Your task to perform on an android device: Open location settings Image 0: 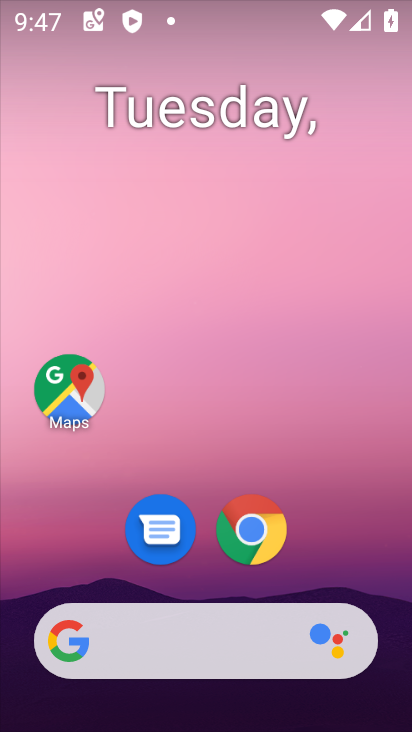
Step 0: drag from (248, 653) to (270, 189)
Your task to perform on an android device: Open location settings Image 1: 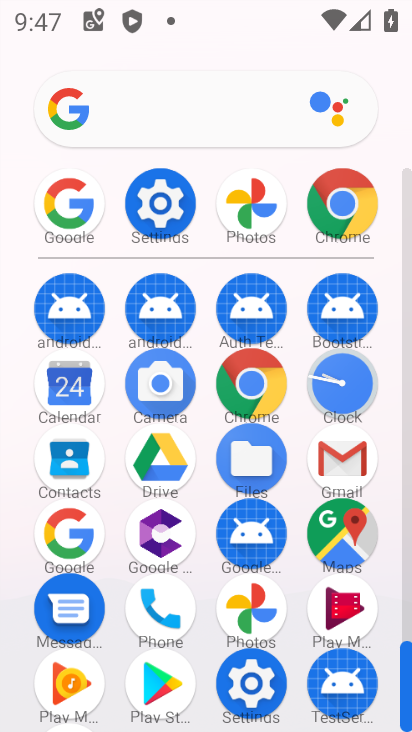
Step 1: click (157, 196)
Your task to perform on an android device: Open location settings Image 2: 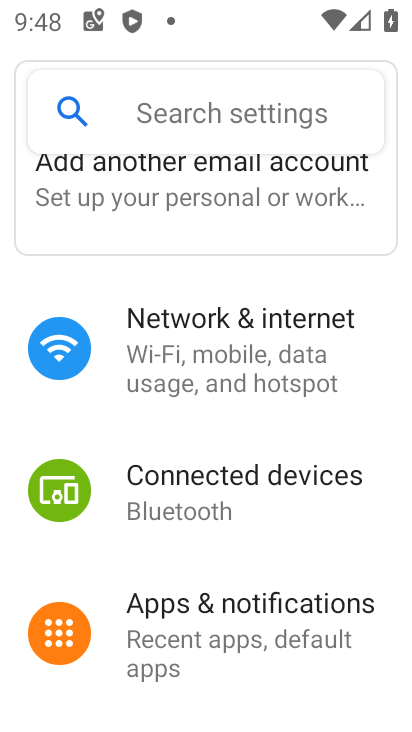
Step 2: drag from (238, 545) to (238, 209)
Your task to perform on an android device: Open location settings Image 3: 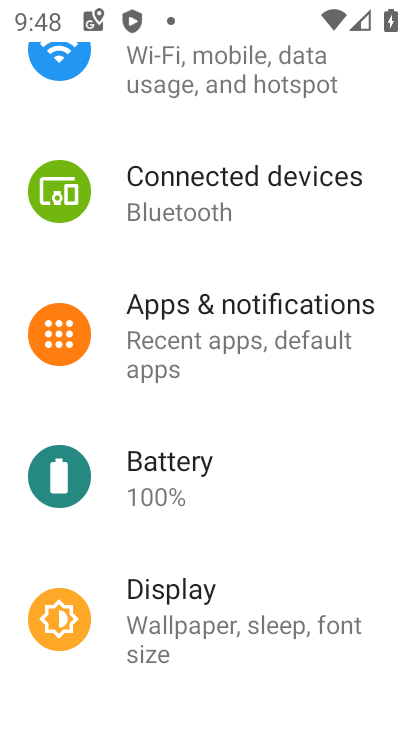
Step 3: drag from (169, 570) to (213, 264)
Your task to perform on an android device: Open location settings Image 4: 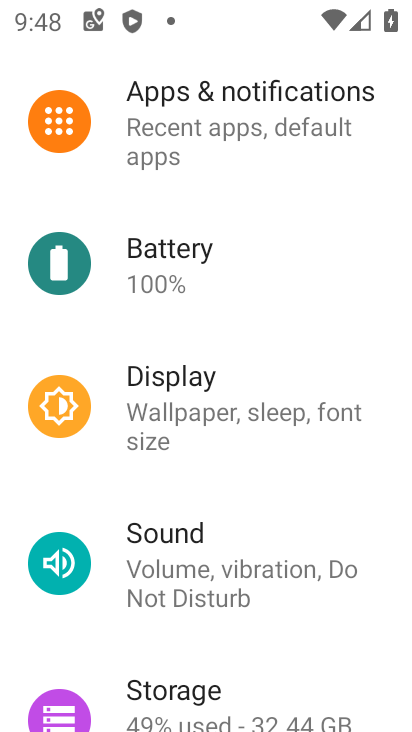
Step 4: drag from (190, 637) to (223, 271)
Your task to perform on an android device: Open location settings Image 5: 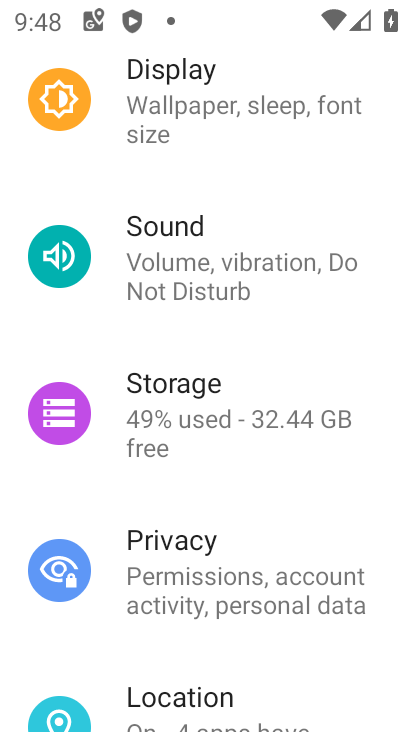
Step 5: drag from (201, 569) to (246, 191)
Your task to perform on an android device: Open location settings Image 6: 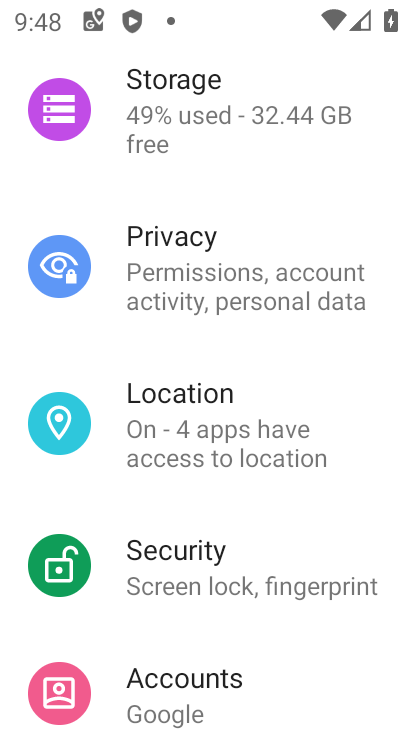
Step 6: click (236, 433)
Your task to perform on an android device: Open location settings Image 7: 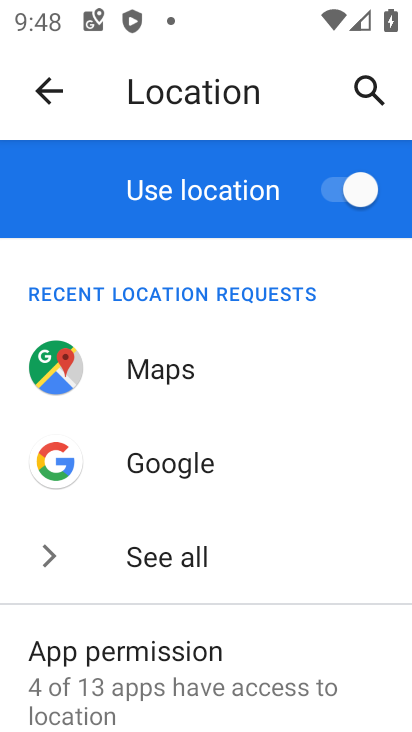
Step 7: click (143, 703)
Your task to perform on an android device: Open location settings Image 8: 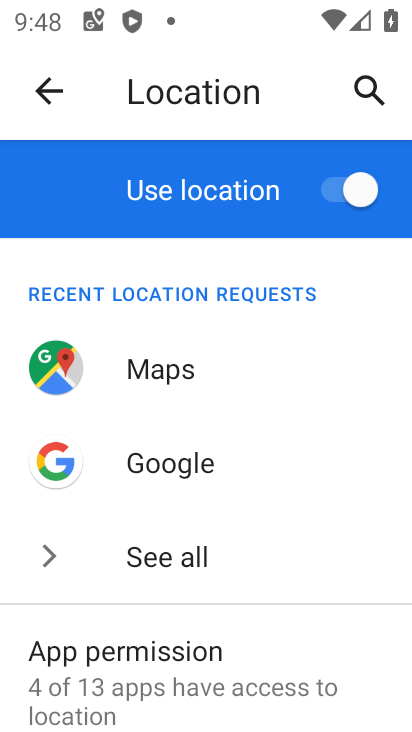
Step 8: task complete